Your task to perform on an android device: Open Chrome and go to the settings page Image 0: 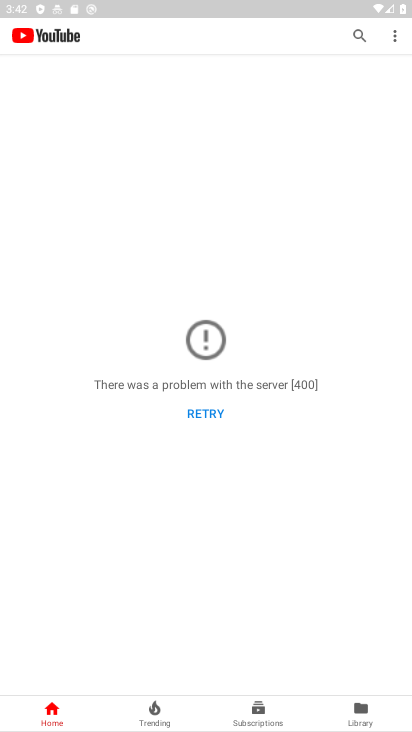
Step 0: press home button
Your task to perform on an android device: Open Chrome and go to the settings page Image 1: 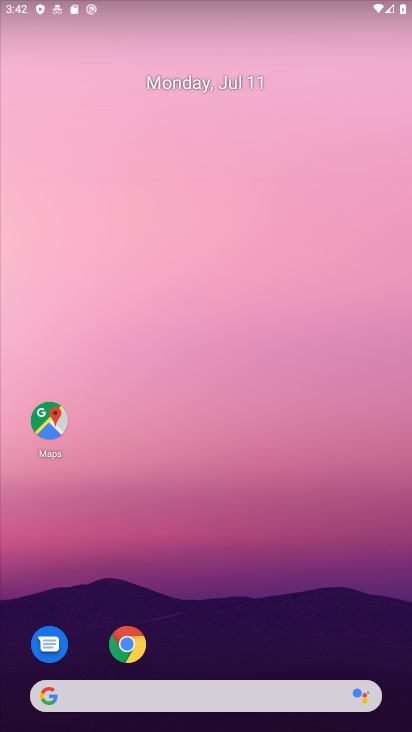
Step 1: click (128, 641)
Your task to perform on an android device: Open Chrome and go to the settings page Image 2: 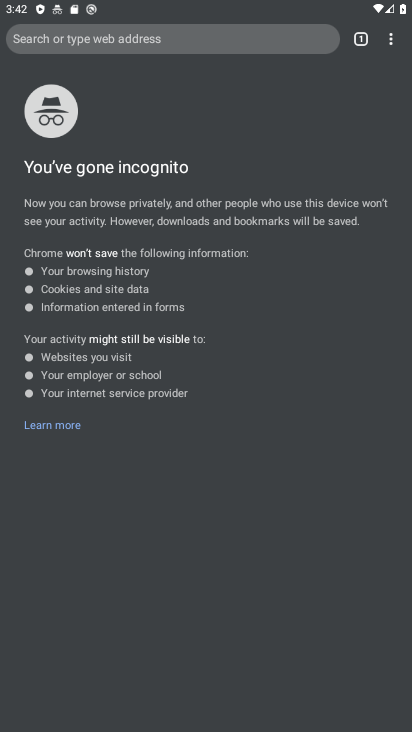
Step 2: click (388, 40)
Your task to perform on an android device: Open Chrome and go to the settings page Image 3: 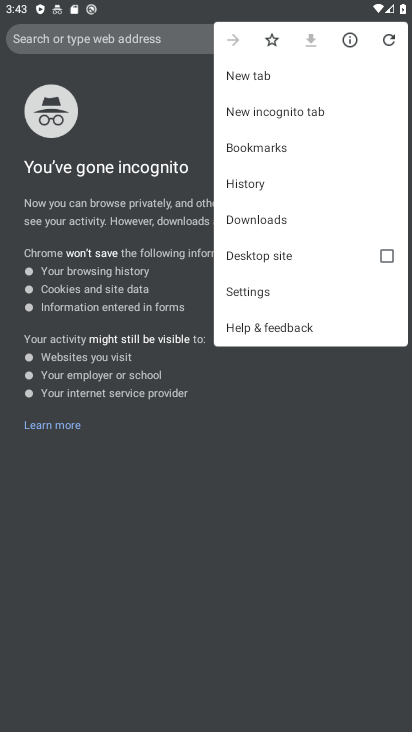
Step 3: click (288, 295)
Your task to perform on an android device: Open Chrome and go to the settings page Image 4: 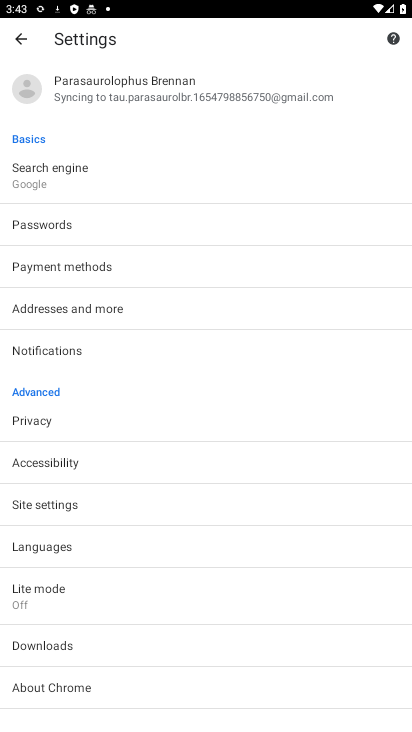
Step 4: task complete